Your task to perform on an android device: Open wifi settings Image 0: 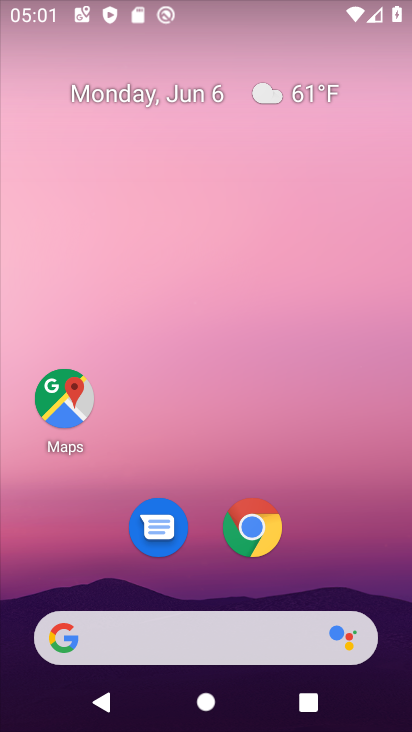
Step 0: drag from (385, 661) to (306, 152)
Your task to perform on an android device: Open wifi settings Image 1: 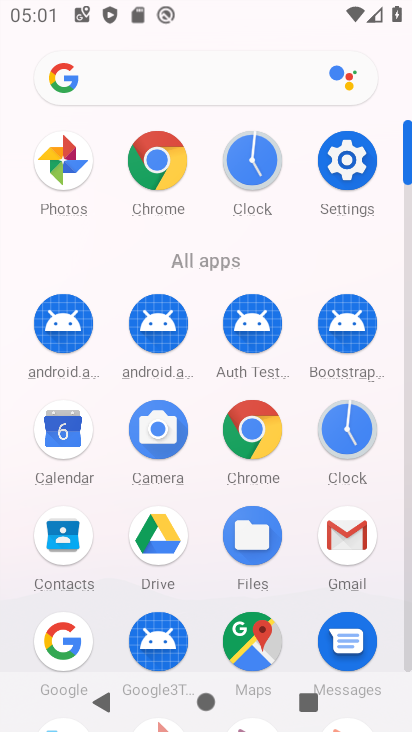
Step 1: click (362, 155)
Your task to perform on an android device: Open wifi settings Image 2: 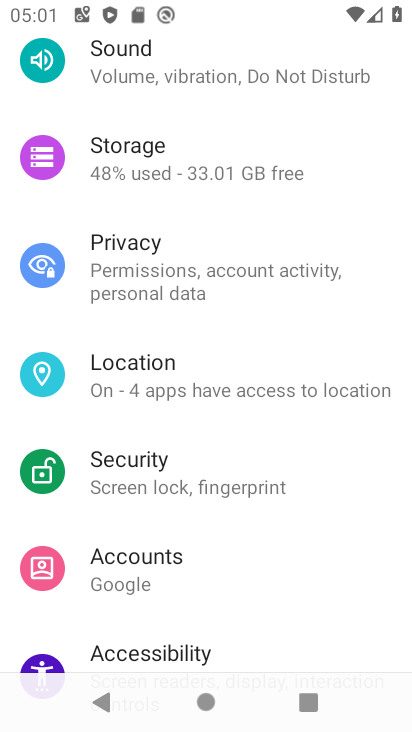
Step 2: drag from (334, 139) to (355, 581)
Your task to perform on an android device: Open wifi settings Image 3: 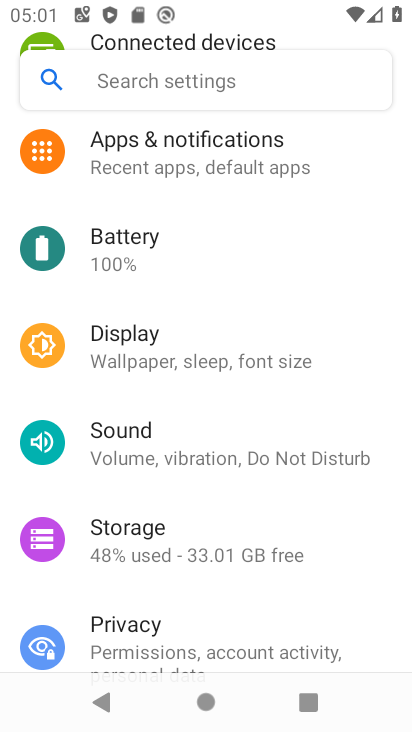
Step 3: drag from (304, 204) to (324, 670)
Your task to perform on an android device: Open wifi settings Image 4: 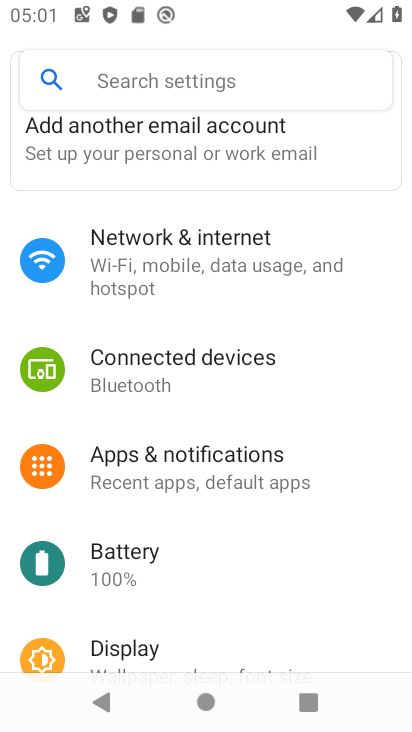
Step 4: drag from (306, 298) to (323, 617)
Your task to perform on an android device: Open wifi settings Image 5: 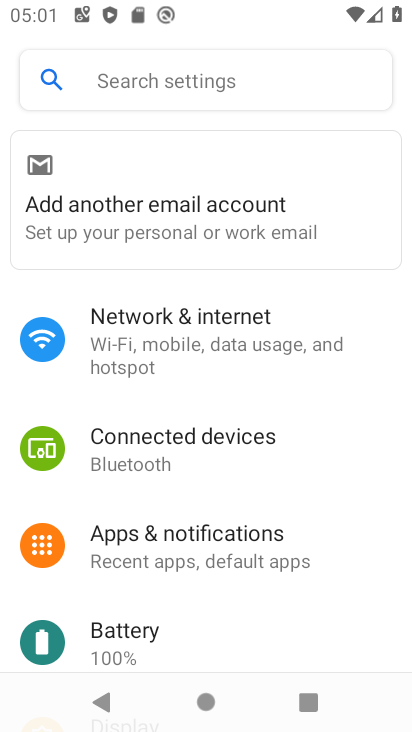
Step 5: click (207, 317)
Your task to perform on an android device: Open wifi settings Image 6: 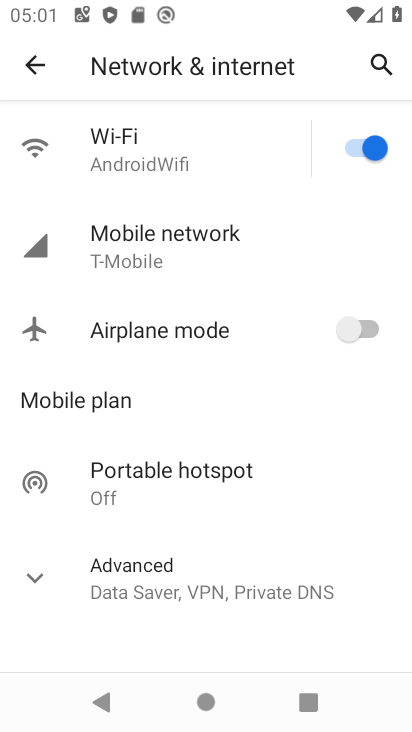
Step 6: click (156, 144)
Your task to perform on an android device: Open wifi settings Image 7: 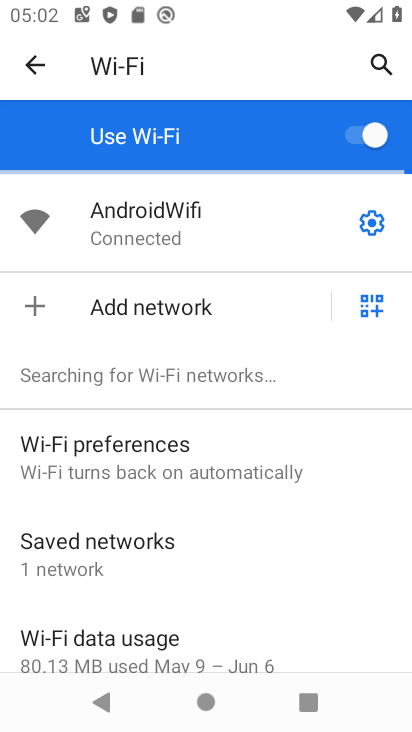
Step 7: click (376, 217)
Your task to perform on an android device: Open wifi settings Image 8: 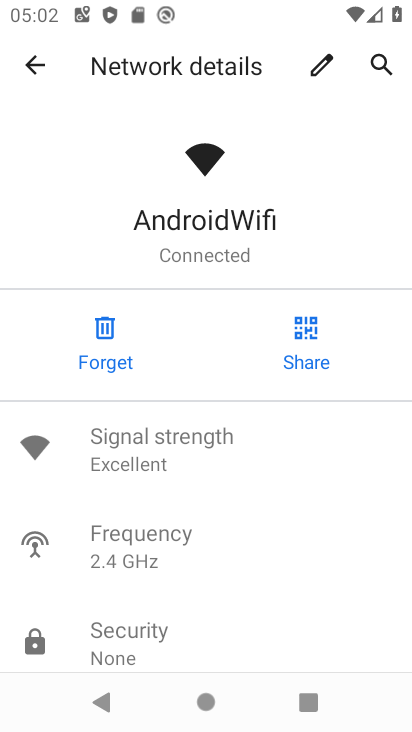
Step 8: task complete